Your task to perform on an android device: turn off notifications settings in the gmail app Image 0: 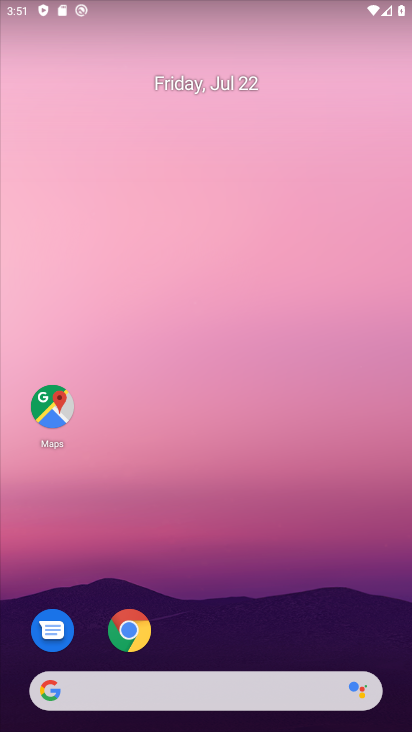
Step 0: drag from (306, 688) to (202, 11)
Your task to perform on an android device: turn off notifications settings in the gmail app Image 1: 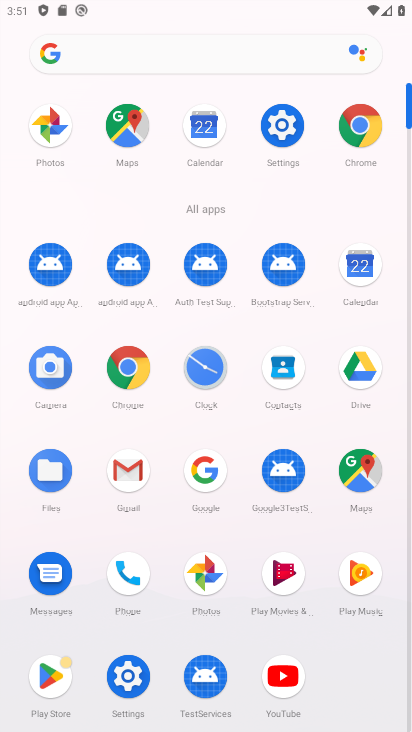
Step 1: click (142, 469)
Your task to perform on an android device: turn off notifications settings in the gmail app Image 2: 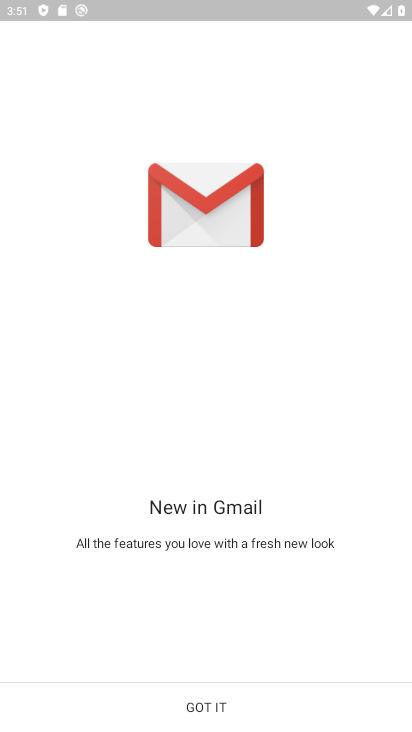
Step 2: click (259, 712)
Your task to perform on an android device: turn off notifications settings in the gmail app Image 3: 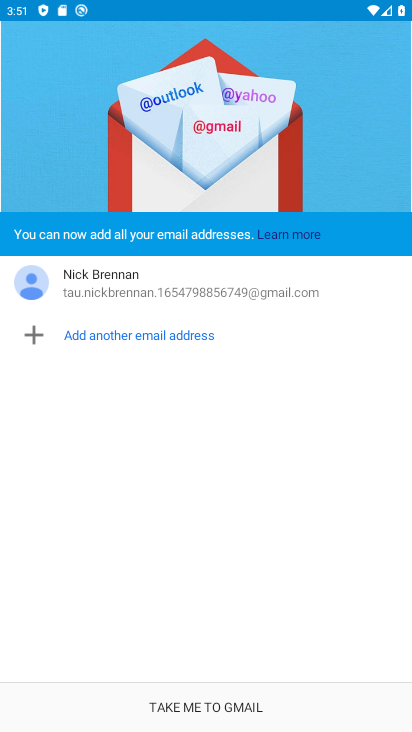
Step 3: click (235, 713)
Your task to perform on an android device: turn off notifications settings in the gmail app Image 4: 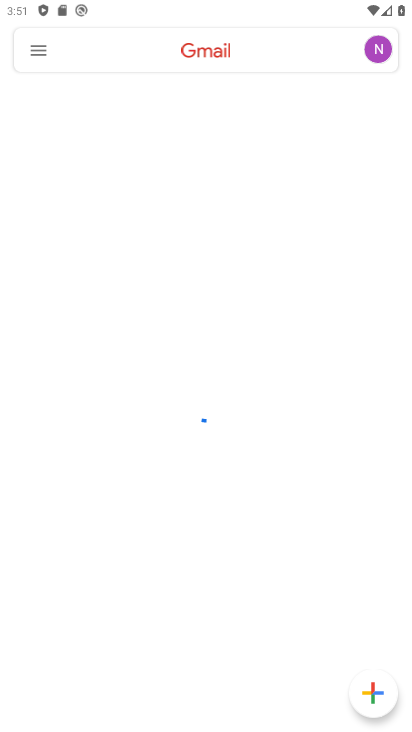
Step 4: click (31, 48)
Your task to perform on an android device: turn off notifications settings in the gmail app Image 5: 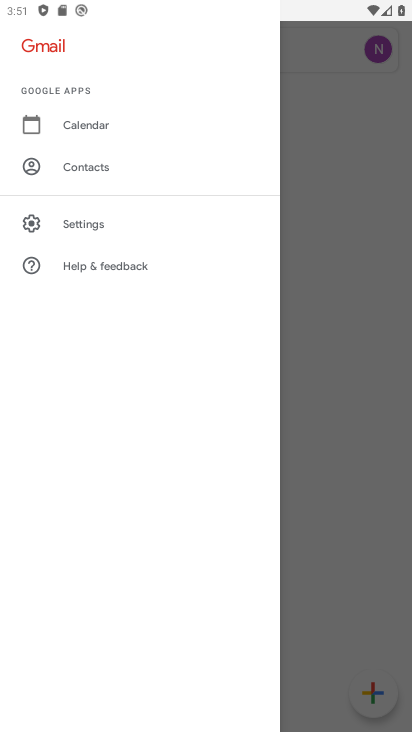
Step 5: click (97, 230)
Your task to perform on an android device: turn off notifications settings in the gmail app Image 6: 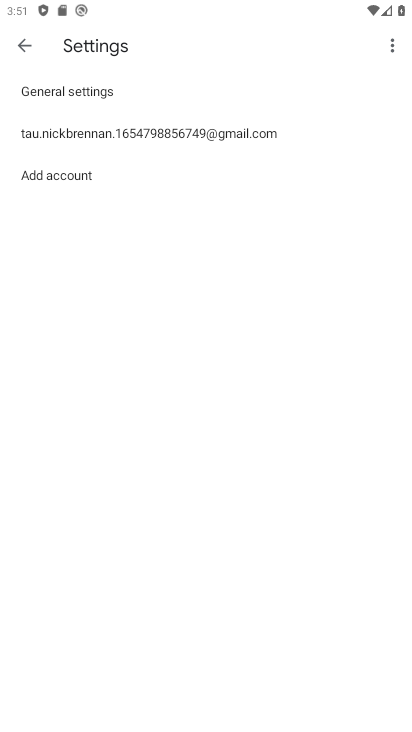
Step 6: click (159, 134)
Your task to perform on an android device: turn off notifications settings in the gmail app Image 7: 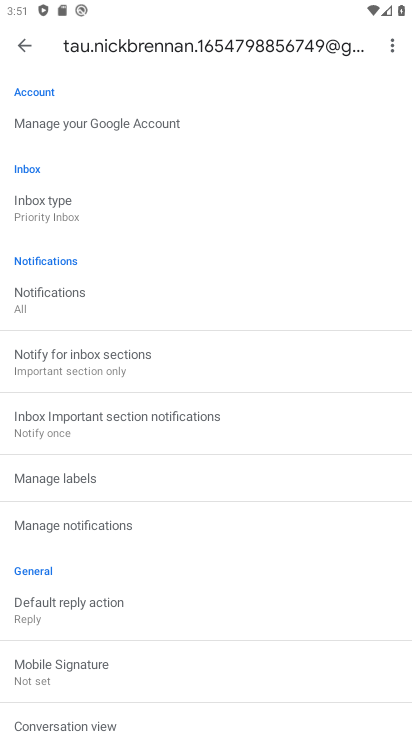
Step 7: click (141, 527)
Your task to perform on an android device: turn off notifications settings in the gmail app Image 8: 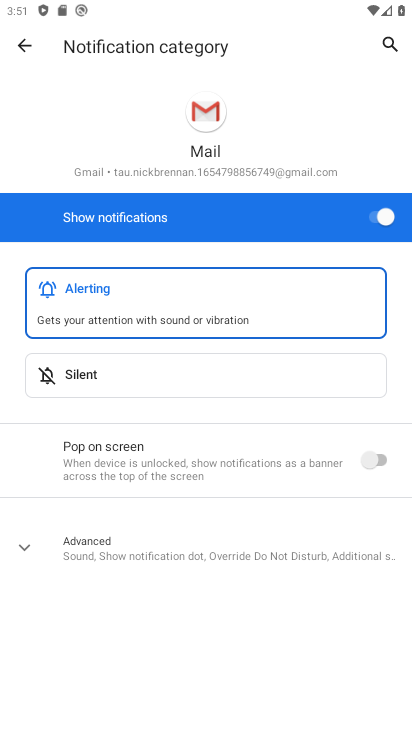
Step 8: click (379, 222)
Your task to perform on an android device: turn off notifications settings in the gmail app Image 9: 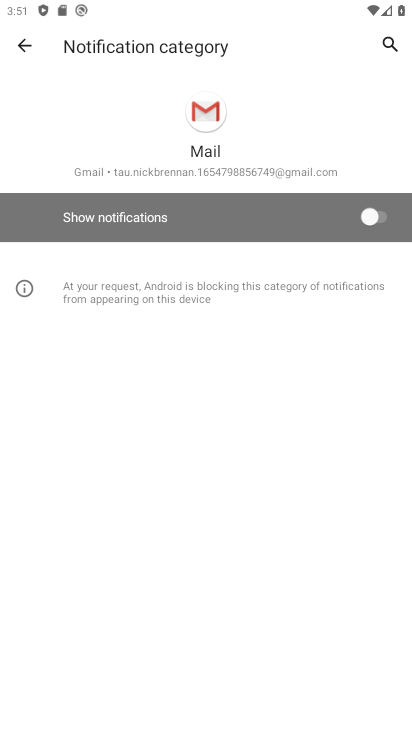
Step 9: task complete